Your task to perform on an android device: Turn on the flashlight Image 0: 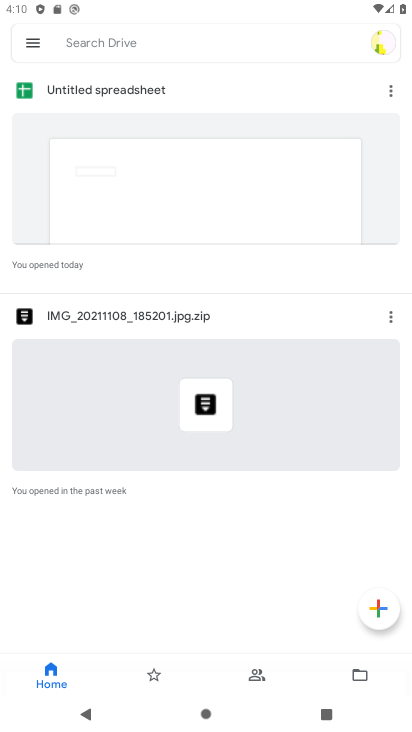
Step 0: drag from (295, 9) to (247, 396)
Your task to perform on an android device: Turn on the flashlight Image 1: 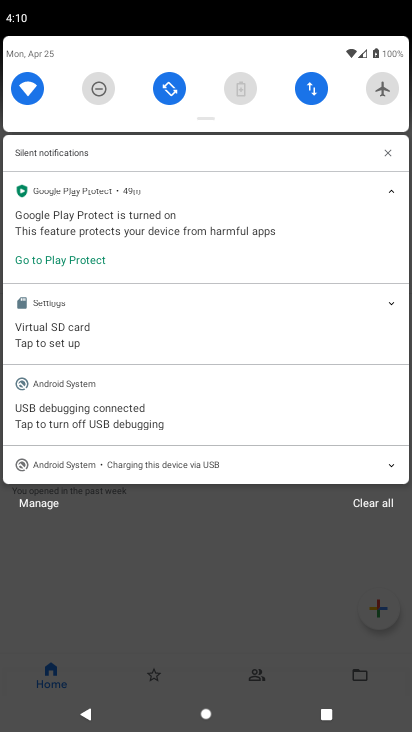
Step 1: task complete